Your task to perform on an android device: Open network settings Image 0: 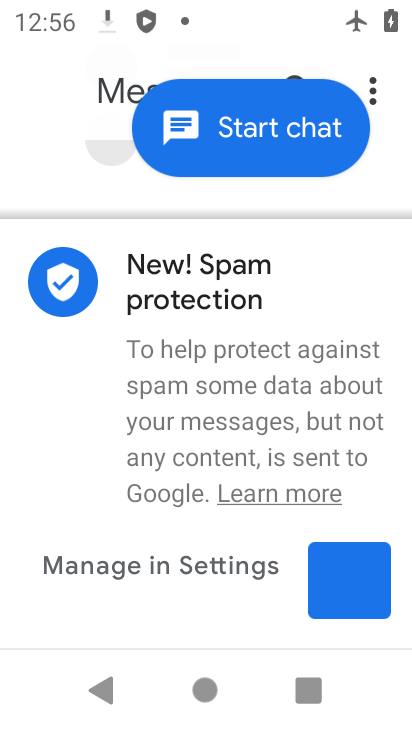
Step 0: press home button
Your task to perform on an android device: Open network settings Image 1: 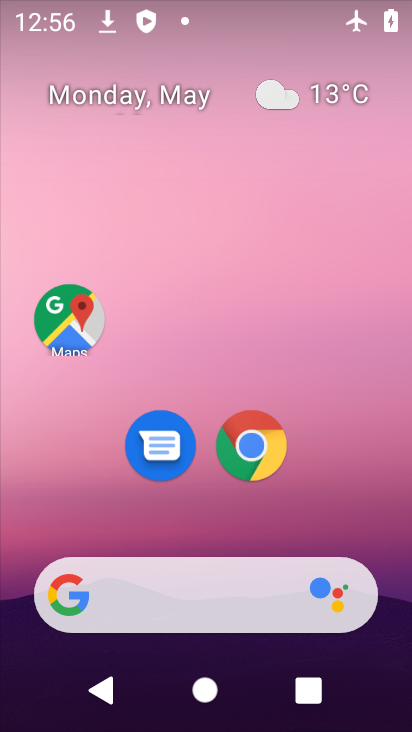
Step 1: drag from (296, 538) to (208, 29)
Your task to perform on an android device: Open network settings Image 2: 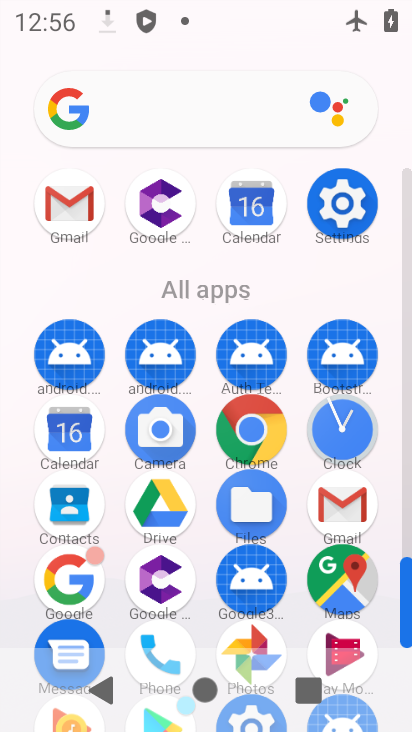
Step 2: click (340, 211)
Your task to perform on an android device: Open network settings Image 3: 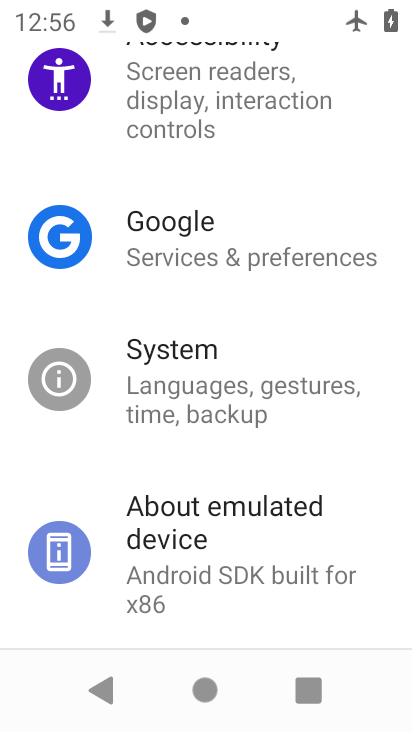
Step 3: drag from (206, 227) to (160, 728)
Your task to perform on an android device: Open network settings Image 4: 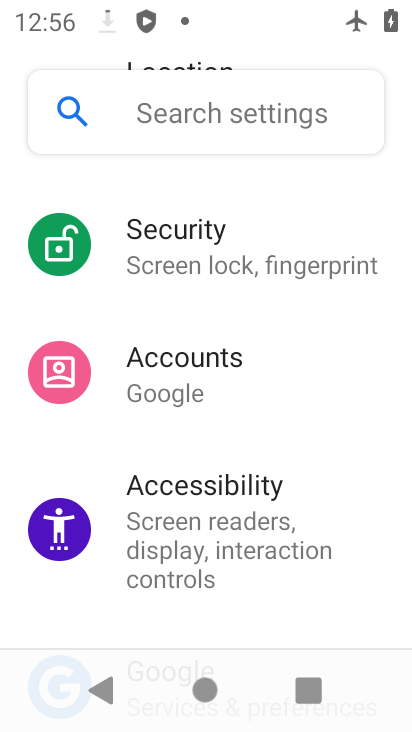
Step 4: drag from (225, 329) to (210, 691)
Your task to perform on an android device: Open network settings Image 5: 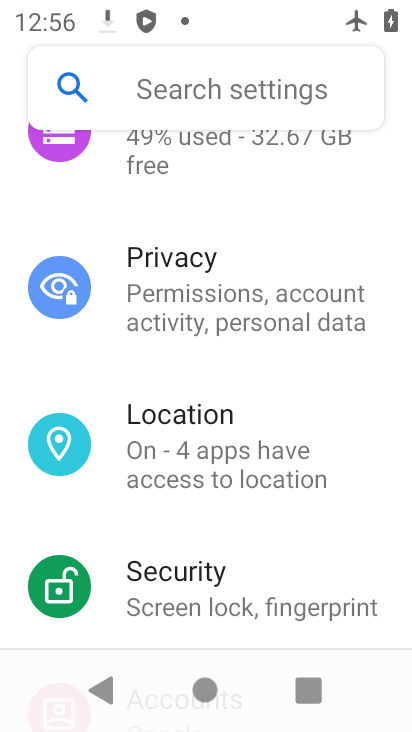
Step 5: drag from (233, 331) to (178, 708)
Your task to perform on an android device: Open network settings Image 6: 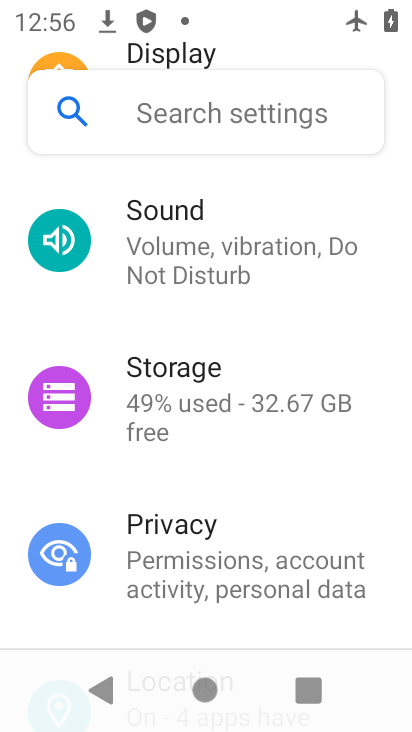
Step 6: drag from (257, 507) to (284, 712)
Your task to perform on an android device: Open network settings Image 7: 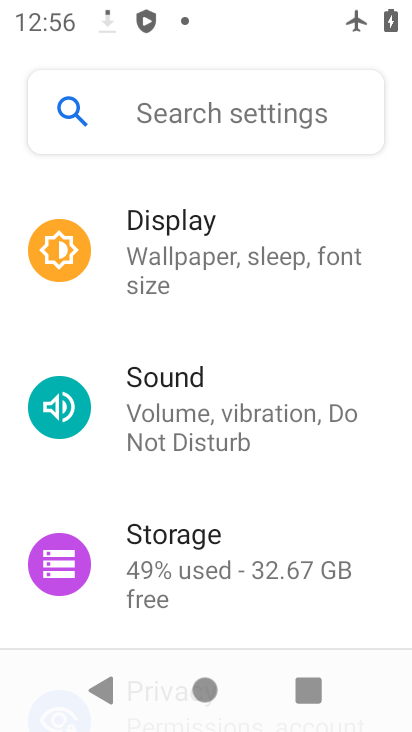
Step 7: drag from (273, 525) to (241, 692)
Your task to perform on an android device: Open network settings Image 8: 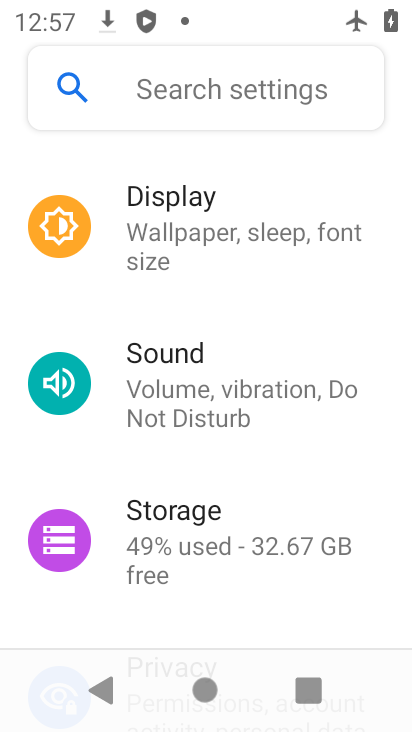
Step 8: drag from (264, 218) to (210, 584)
Your task to perform on an android device: Open network settings Image 9: 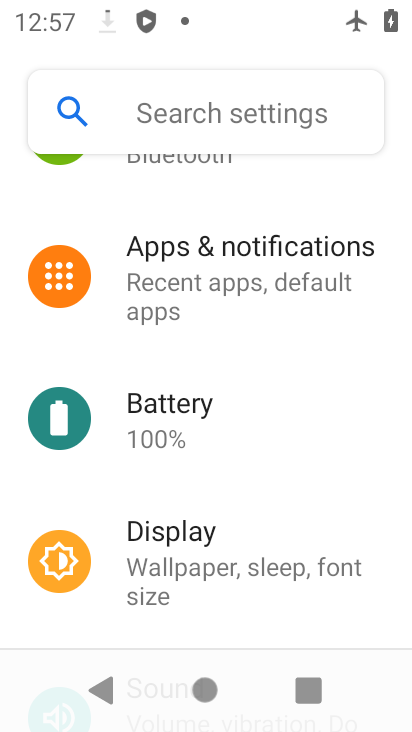
Step 9: drag from (239, 256) to (178, 702)
Your task to perform on an android device: Open network settings Image 10: 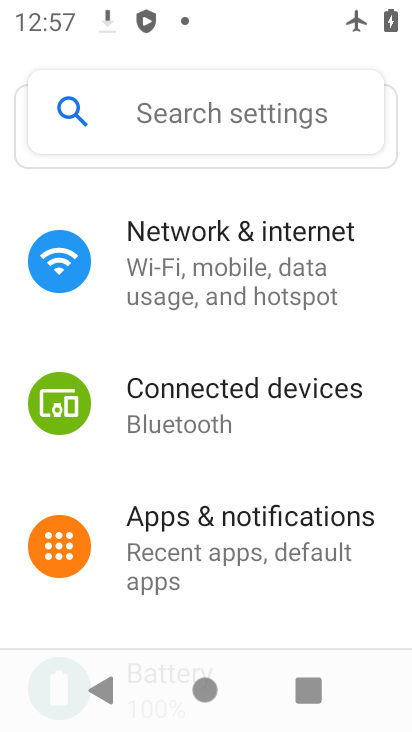
Step 10: click (215, 249)
Your task to perform on an android device: Open network settings Image 11: 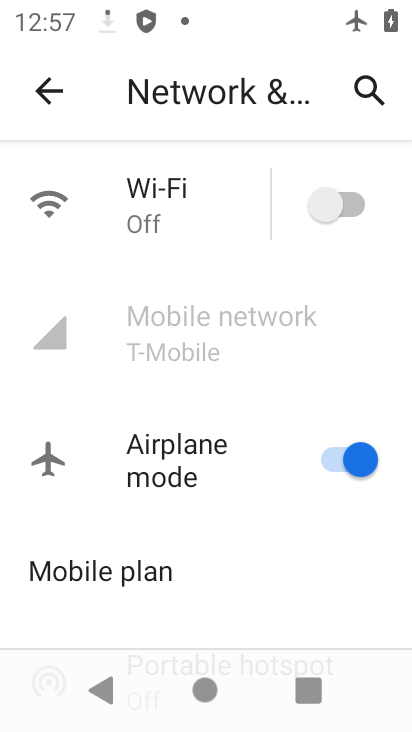
Step 11: task complete